Your task to perform on an android device: install app "Google Home" Image 0: 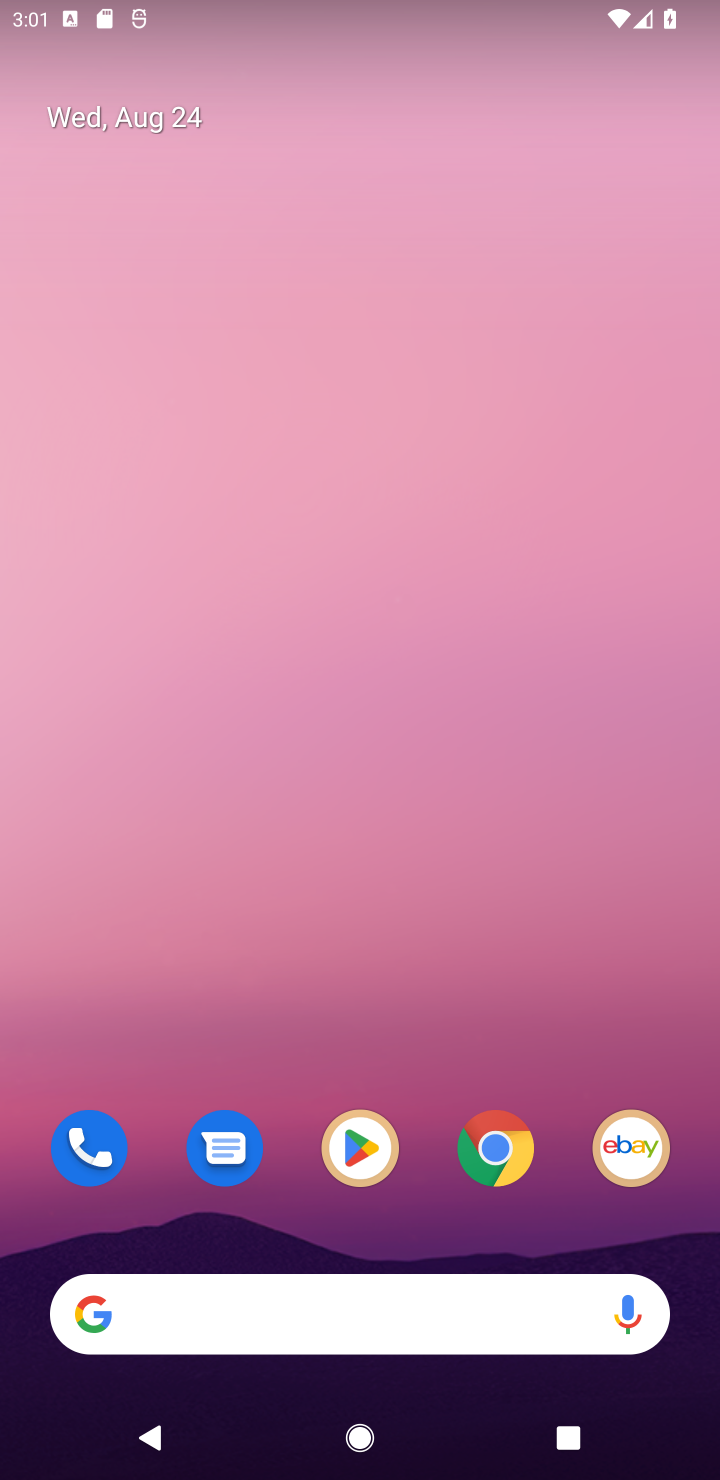
Step 0: drag from (283, 1236) to (320, 389)
Your task to perform on an android device: install app "Google Home" Image 1: 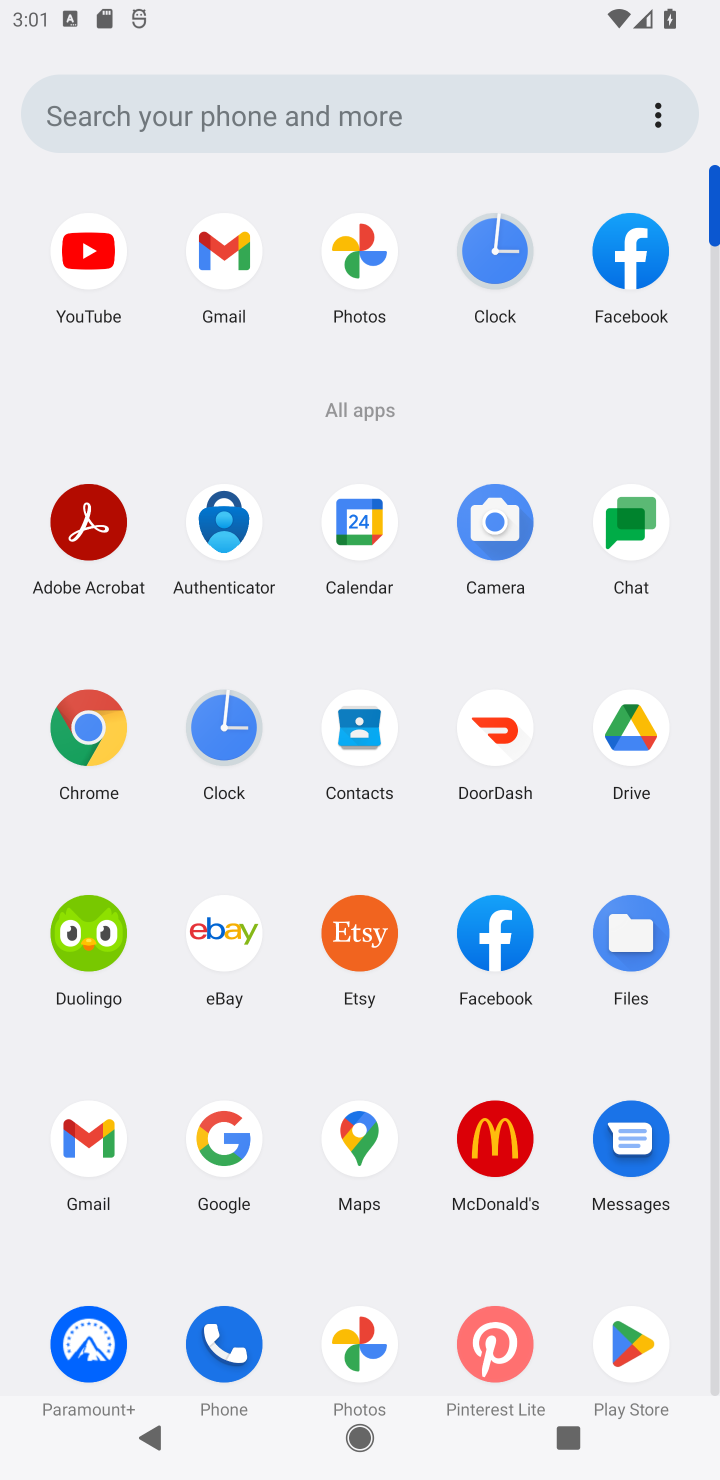
Step 1: drag from (391, 1193) to (444, 455)
Your task to perform on an android device: install app "Google Home" Image 2: 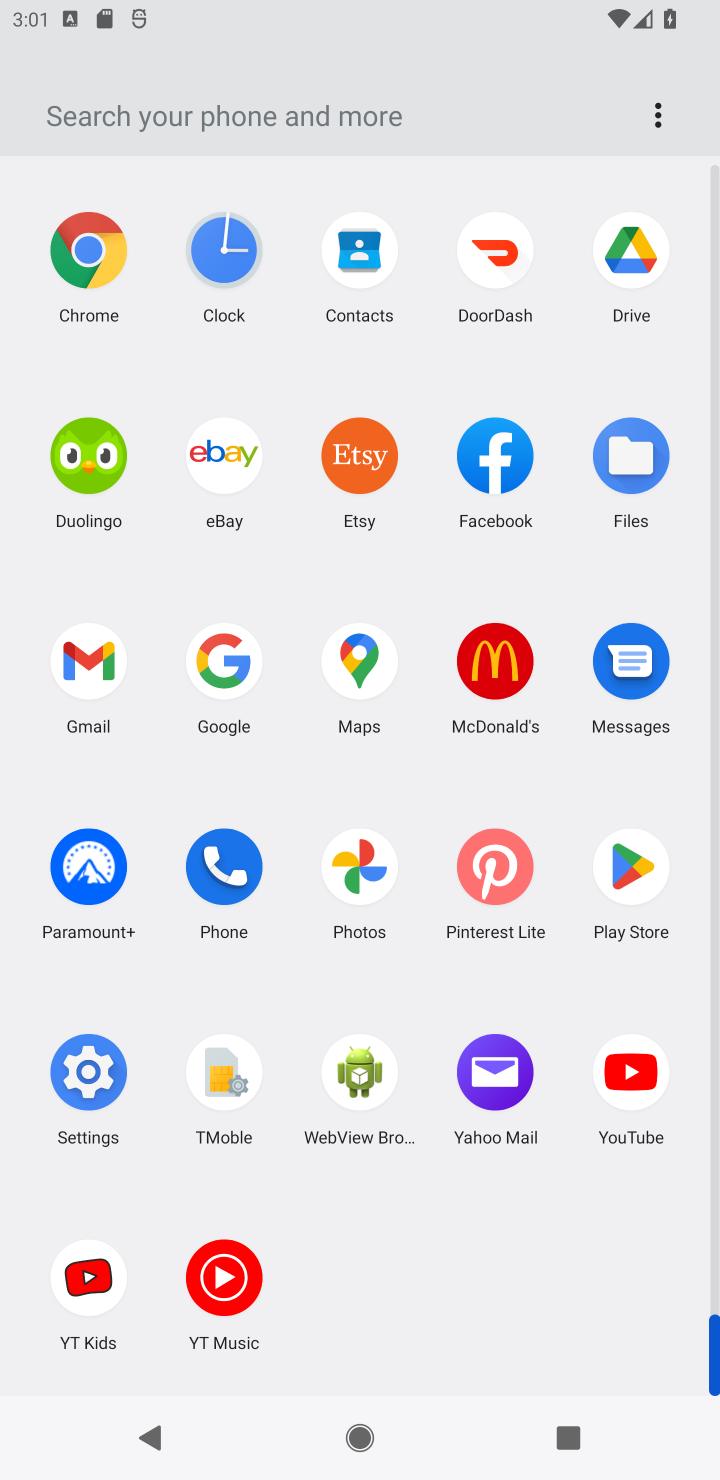
Step 2: click (630, 864)
Your task to perform on an android device: install app "Google Home" Image 3: 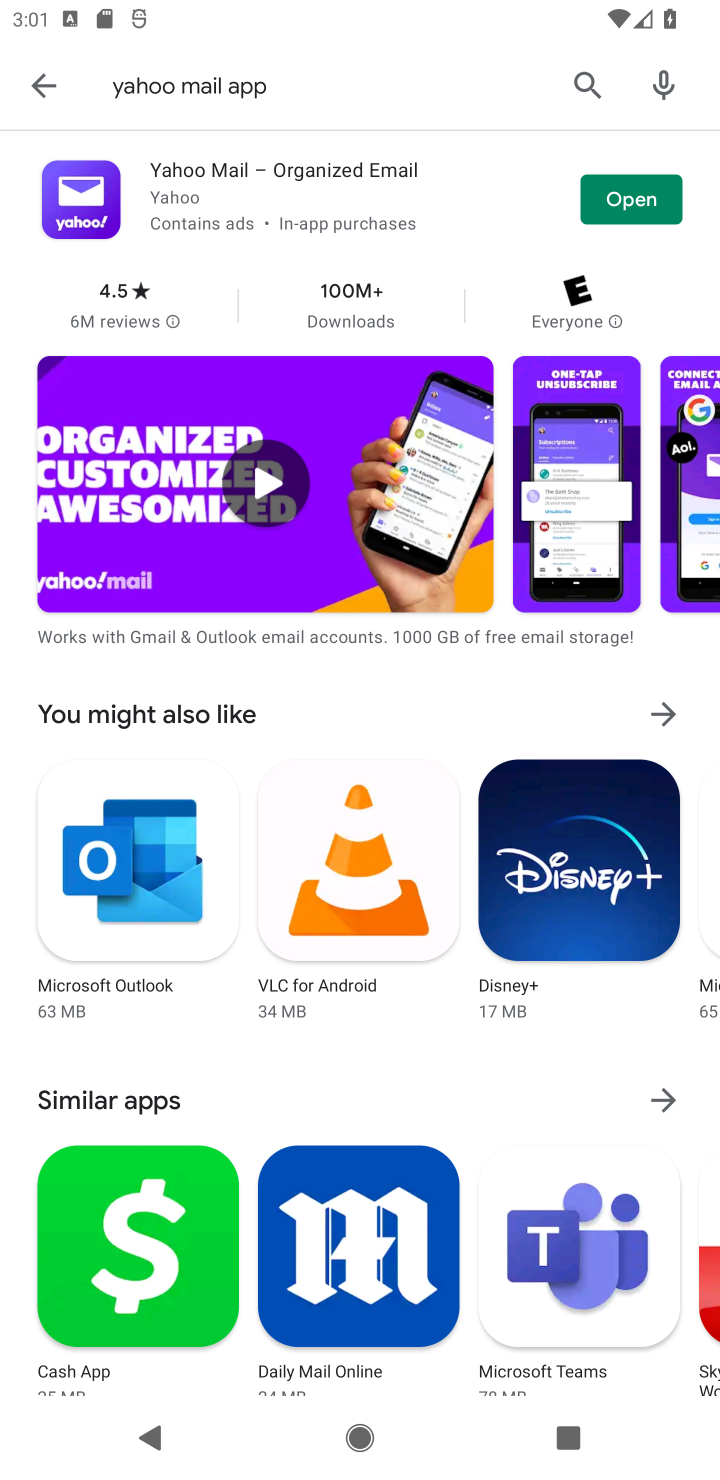
Step 3: click (30, 78)
Your task to perform on an android device: install app "Google Home" Image 4: 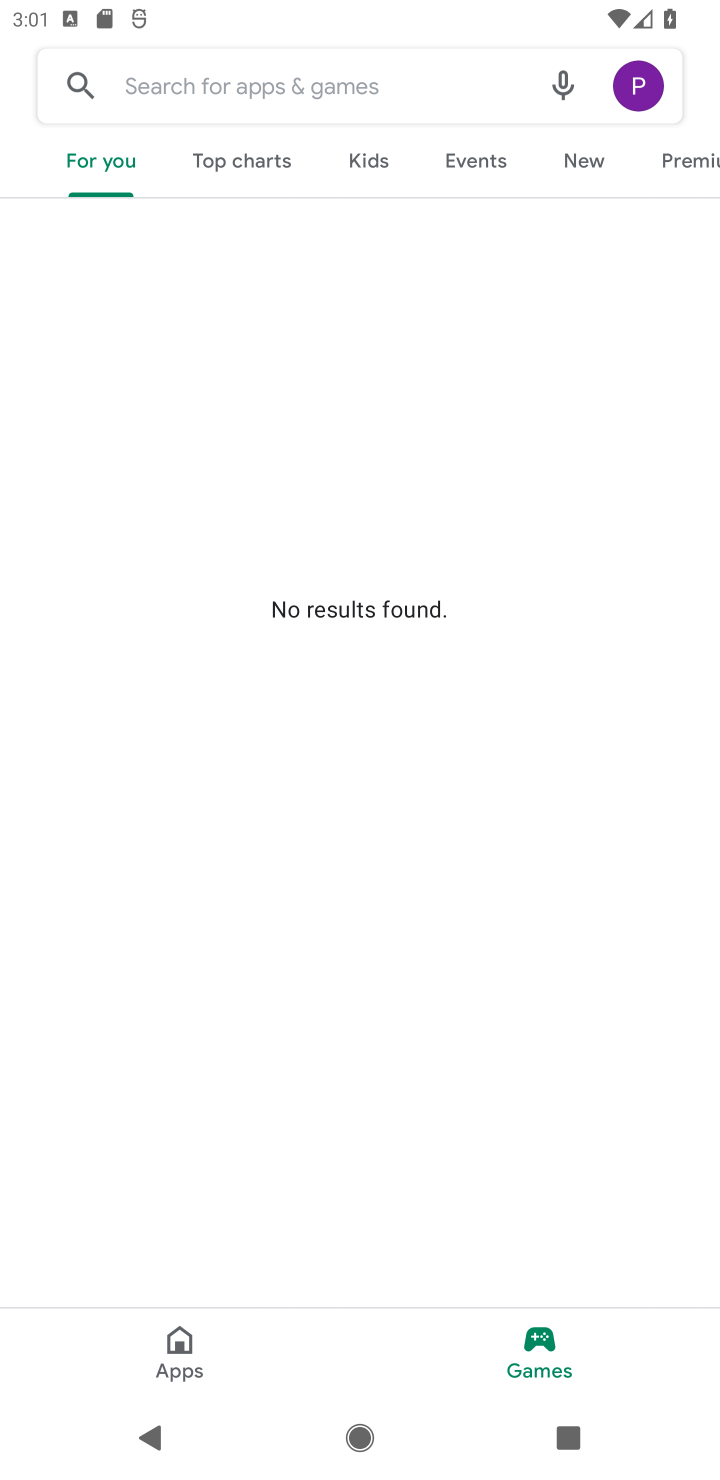
Step 4: click (198, 69)
Your task to perform on an android device: install app "Google Home" Image 5: 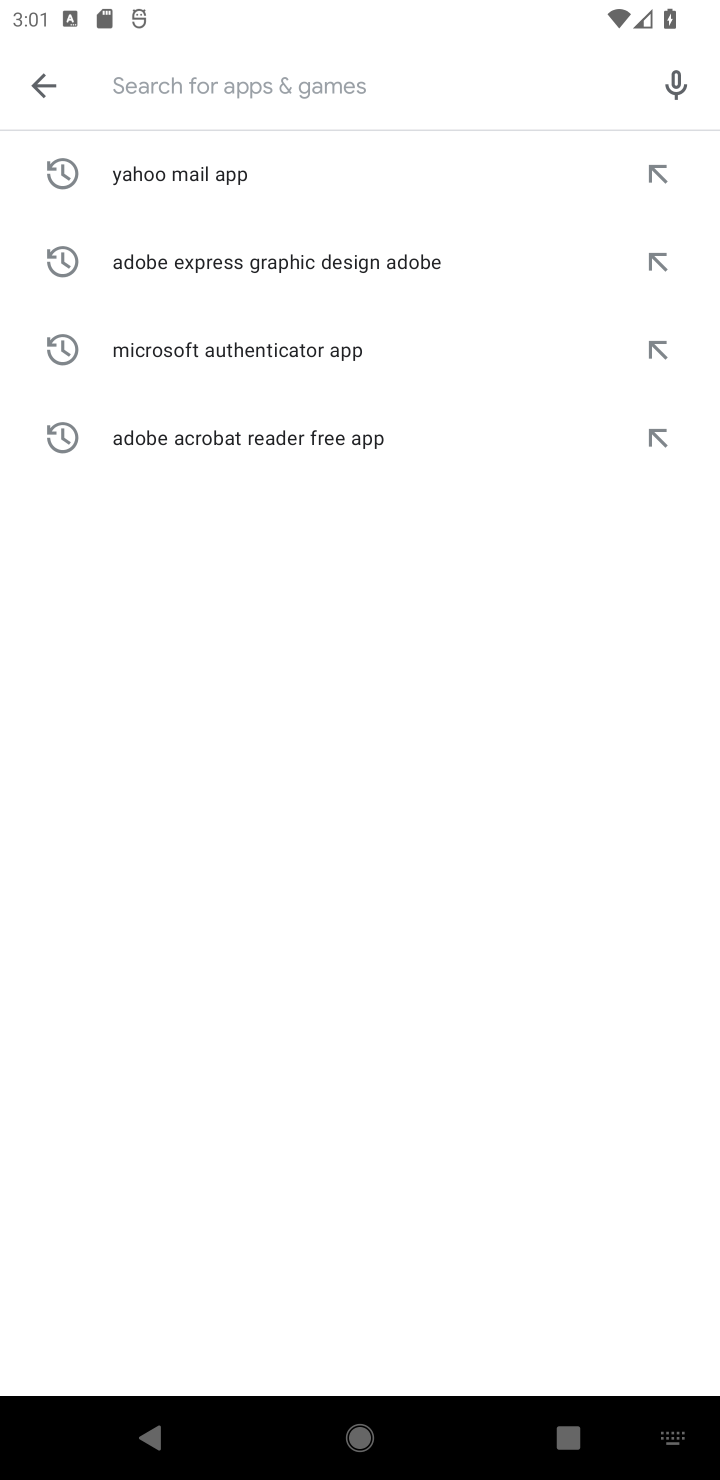
Step 5: type "Google Home "
Your task to perform on an android device: install app "Google Home" Image 6: 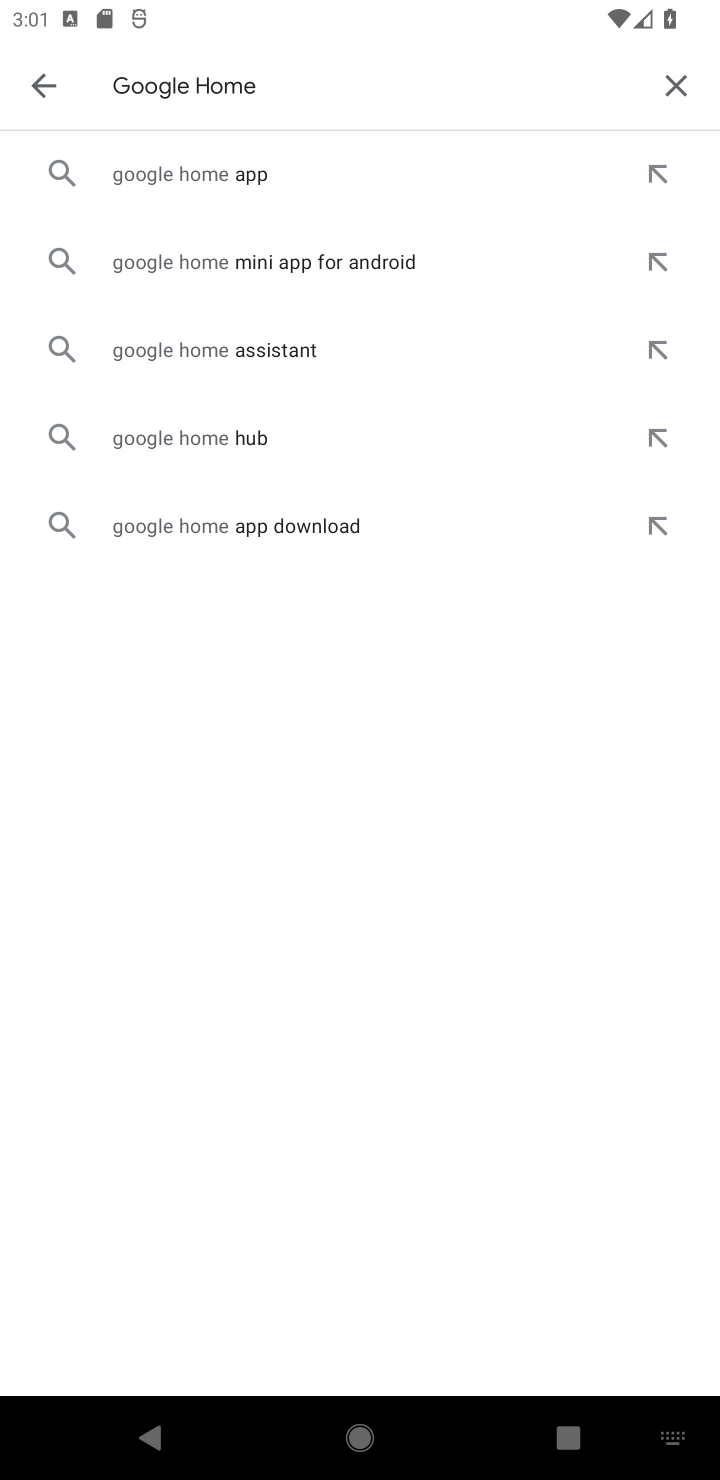
Step 6: click (189, 179)
Your task to perform on an android device: install app "Google Home" Image 7: 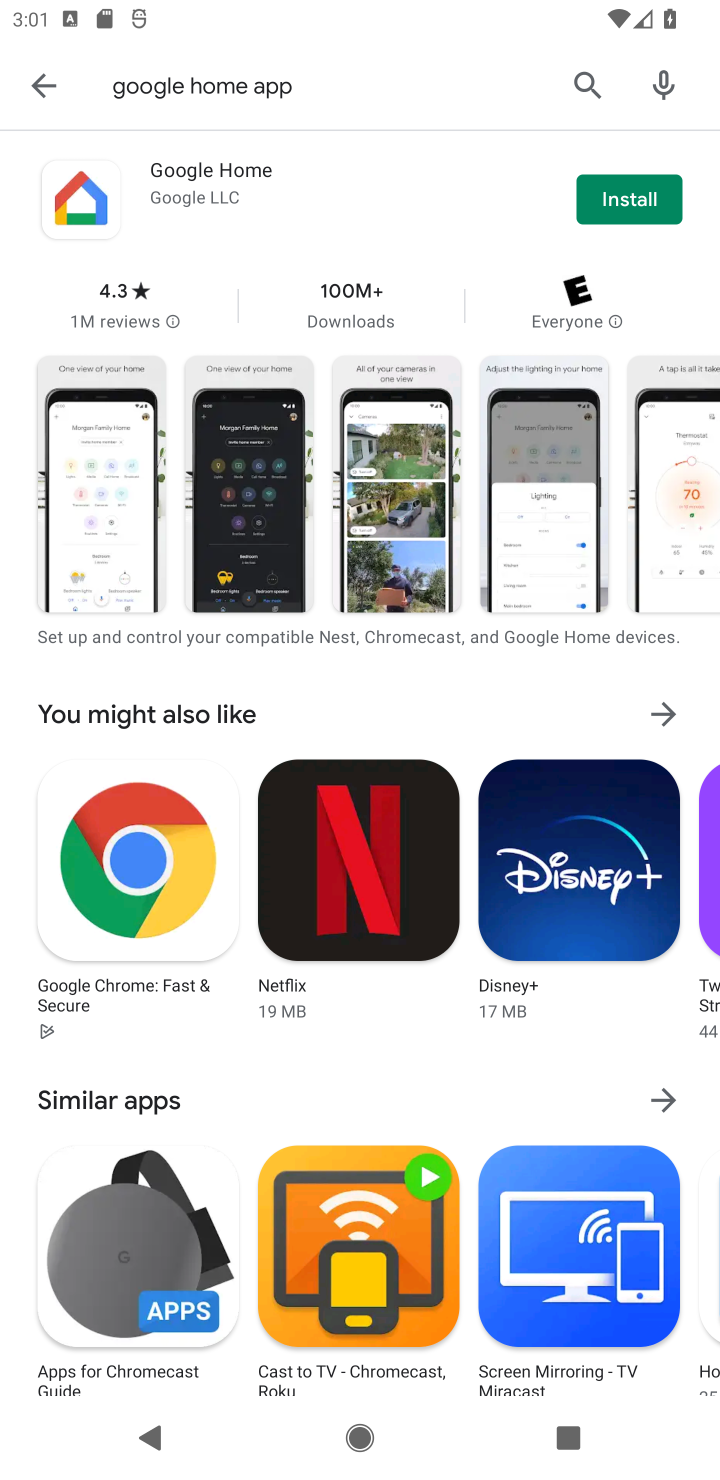
Step 7: click (624, 191)
Your task to perform on an android device: install app "Google Home" Image 8: 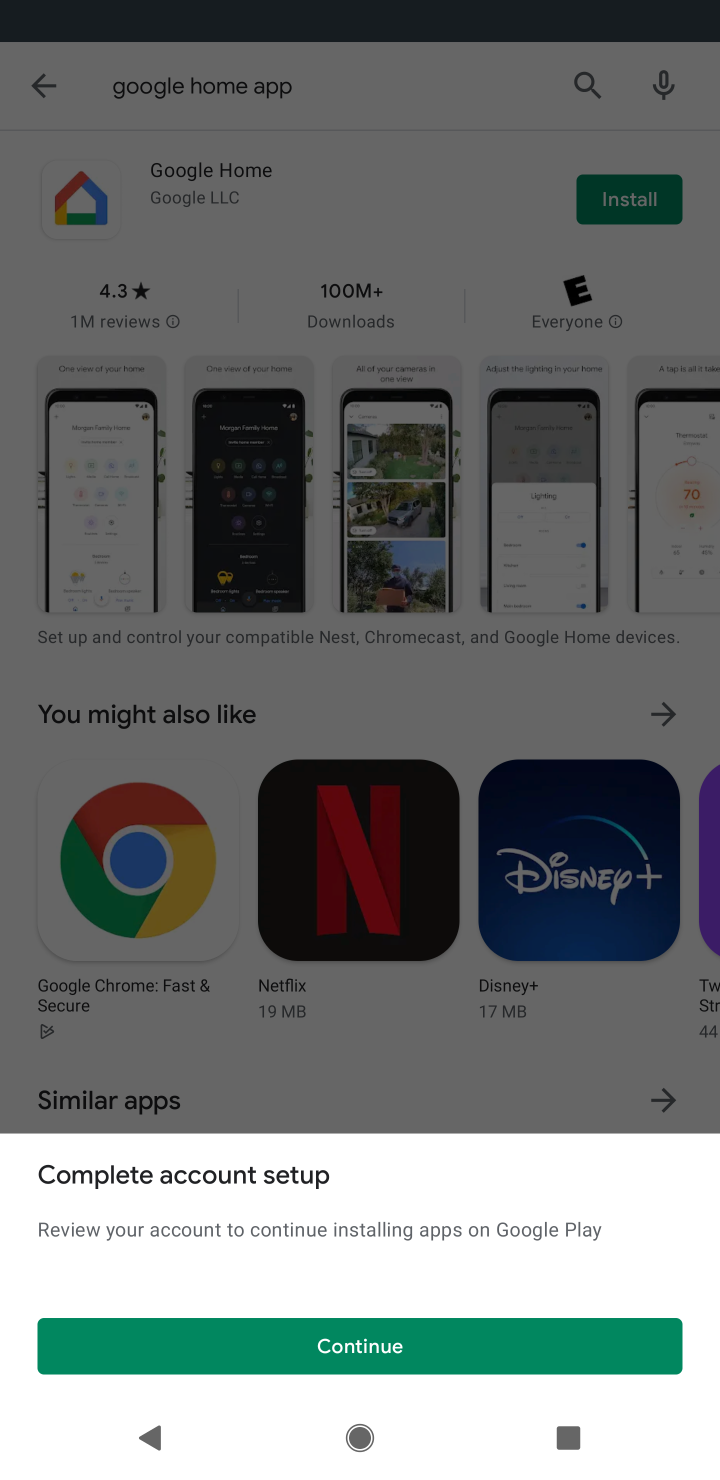
Step 8: task complete